Your task to perform on an android device: Show me the alarms in the clock app Image 0: 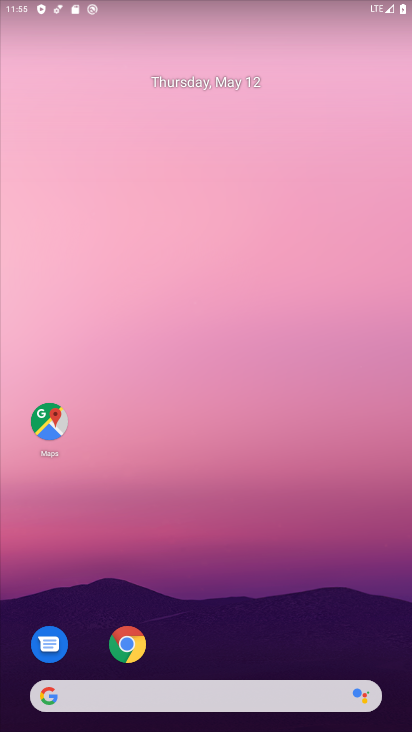
Step 0: drag from (378, 624) to (258, 51)
Your task to perform on an android device: Show me the alarms in the clock app Image 1: 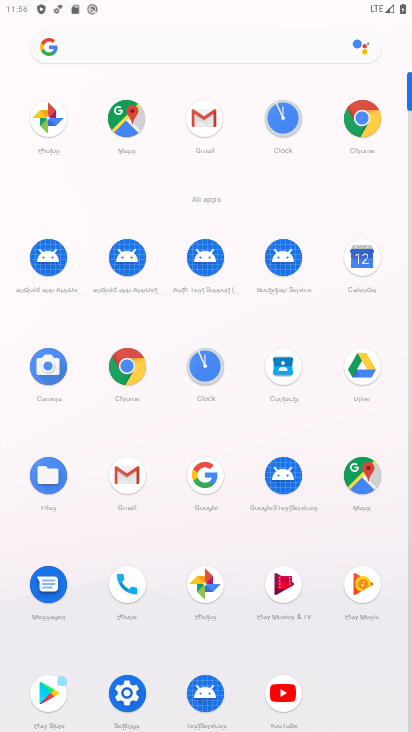
Step 1: click (206, 362)
Your task to perform on an android device: Show me the alarms in the clock app Image 2: 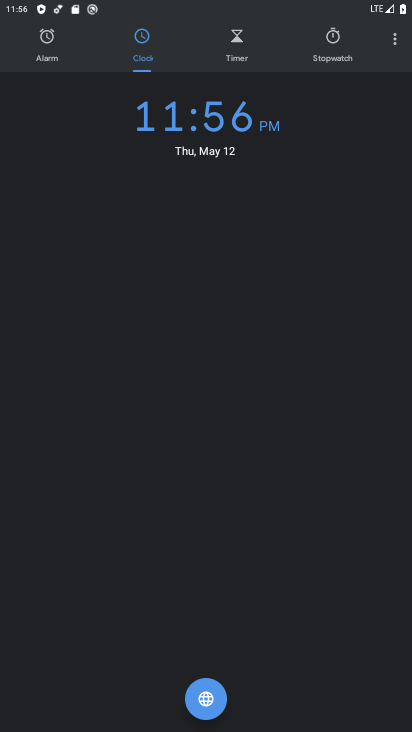
Step 2: click (38, 46)
Your task to perform on an android device: Show me the alarms in the clock app Image 3: 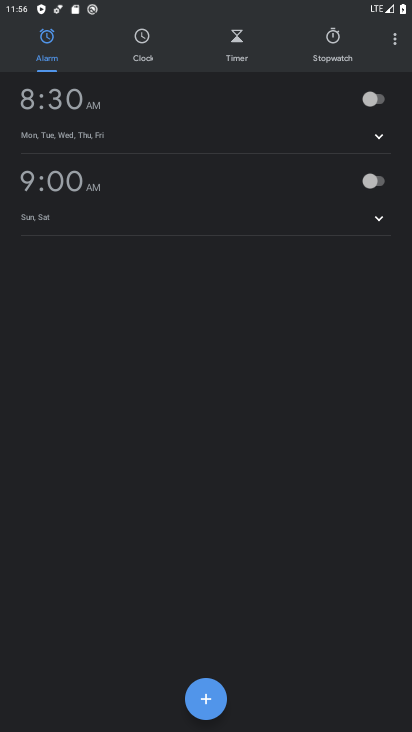
Step 3: task complete